Your task to perform on an android device: Show me popular videos on Youtube Image 0: 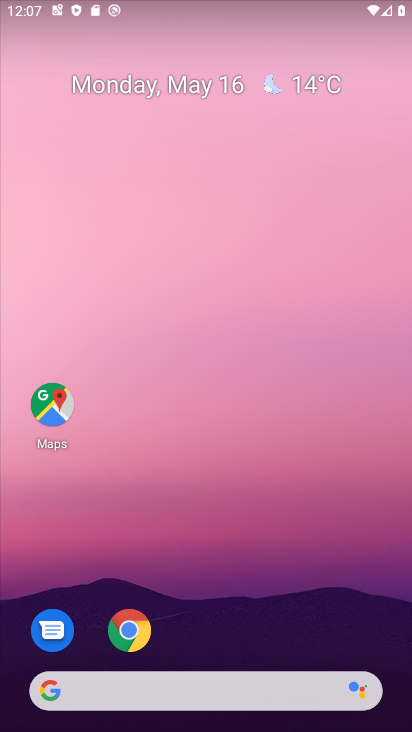
Step 0: drag from (209, 624) to (262, 186)
Your task to perform on an android device: Show me popular videos on Youtube Image 1: 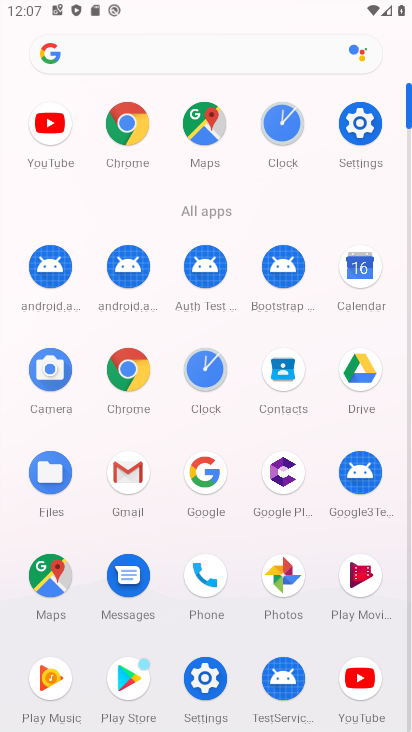
Step 1: click (366, 678)
Your task to perform on an android device: Show me popular videos on Youtube Image 2: 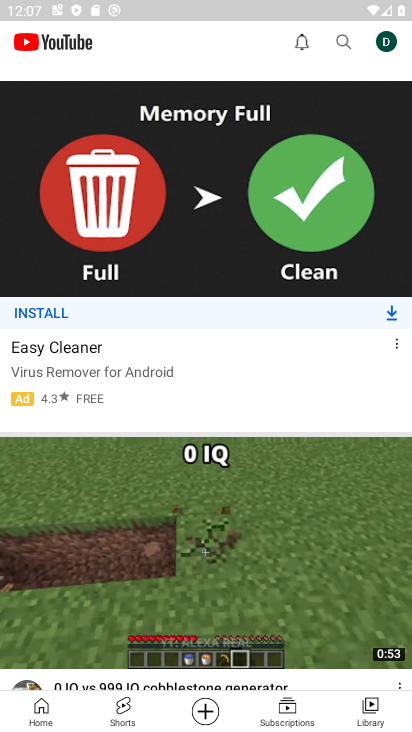
Step 2: drag from (315, 357) to (245, 690)
Your task to perform on an android device: Show me popular videos on Youtube Image 3: 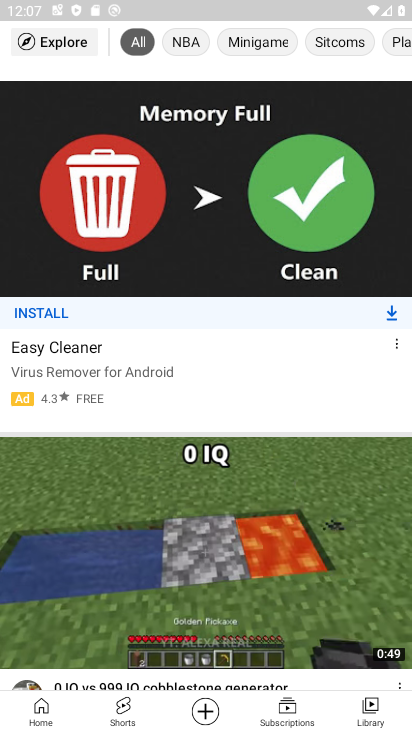
Step 3: drag from (400, 46) to (188, 47)
Your task to perform on an android device: Show me popular videos on Youtube Image 4: 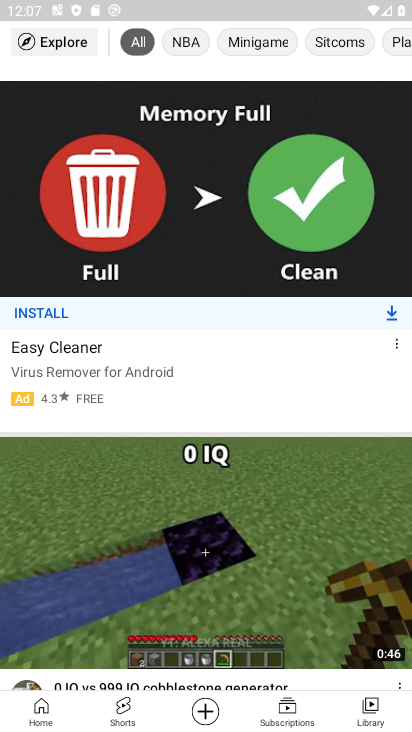
Step 4: drag from (299, 54) to (12, 44)
Your task to perform on an android device: Show me popular videos on Youtube Image 5: 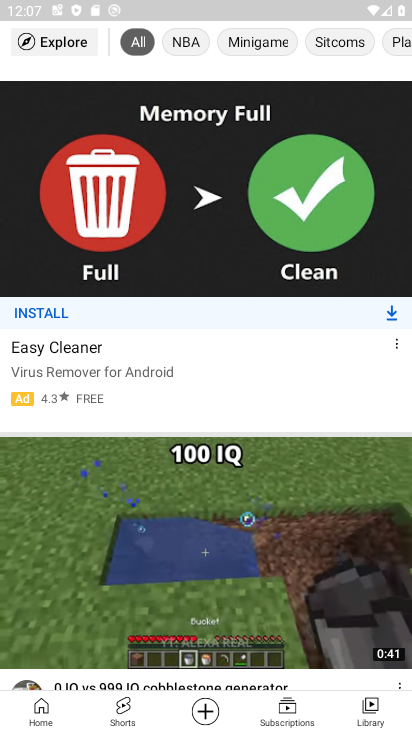
Step 5: click (367, 716)
Your task to perform on an android device: Show me popular videos on Youtube Image 6: 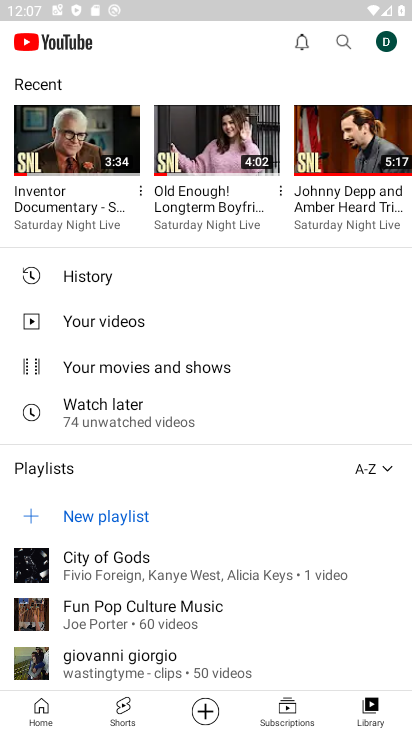
Step 6: click (36, 720)
Your task to perform on an android device: Show me popular videos on Youtube Image 7: 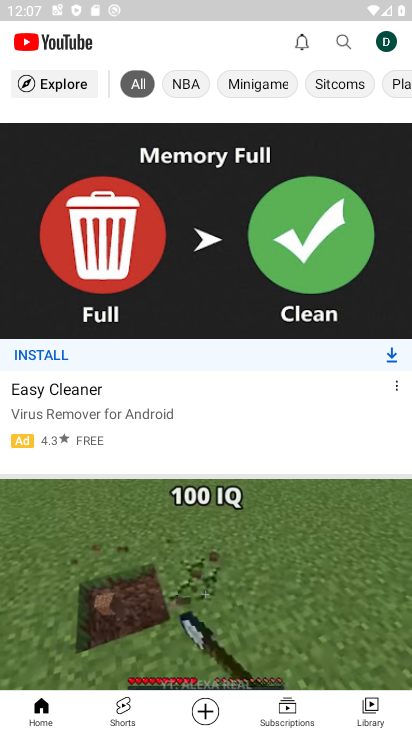
Step 7: task complete